Your task to perform on an android device: Do I have any events today? Image 0: 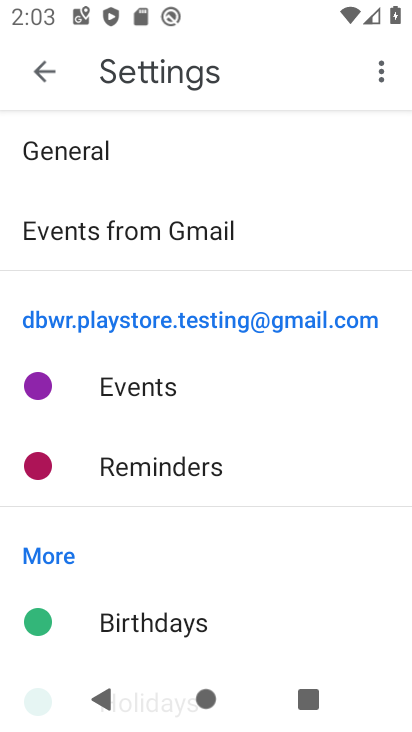
Step 0: press home button
Your task to perform on an android device: Do I have any events today? Image 1: 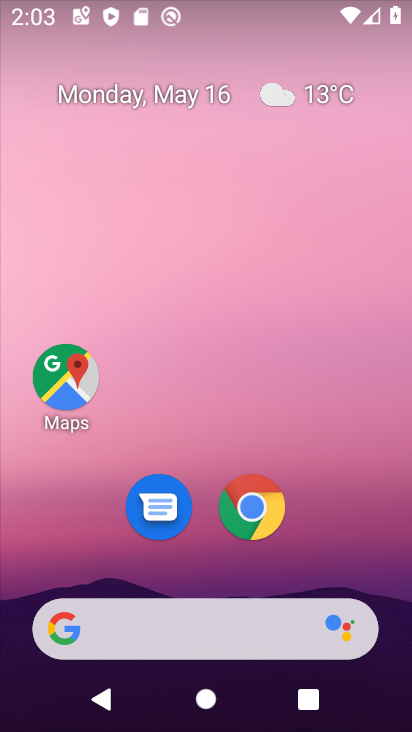
Step 1: drag from (347, 556) to (379, 132)
Your task to perform on an android device: Do I have any events today? Image 2: 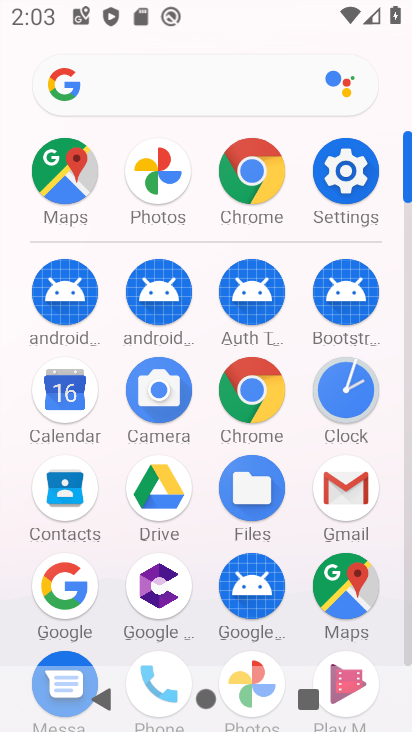
Step 2: click (70, 403)
Your task to perform on an android device: Do I have any events today? Image 3: 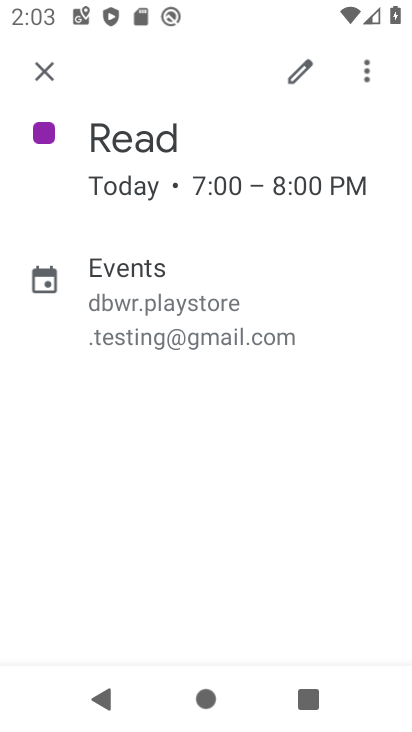
Step 3: click (48, 60)
Your task to perform on an android device: Do I have any events today? Image 4: 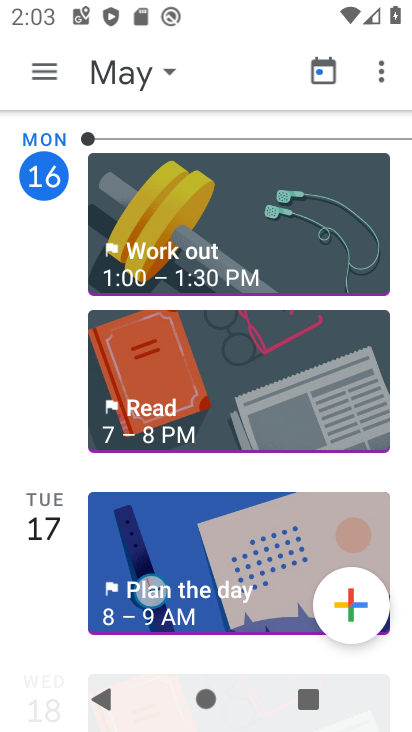
Step 4: click (225, 227)
Your task to perform on an android device: Do I have any events today? Image 5: 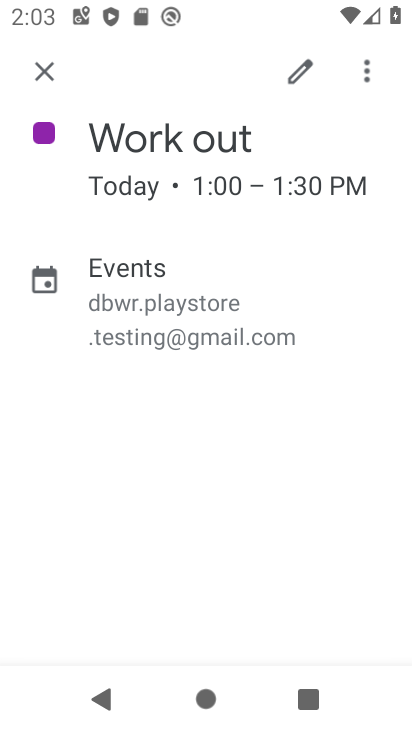
Step 5: task complete